Your task to perform on an android device: make emails show in primary in the gmail app Image 0: 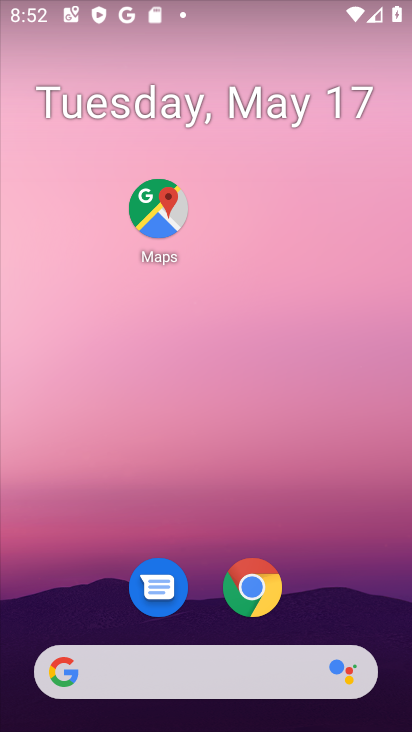
Step 0: drag from (34, 406) to (208, 124)
Your task to perform on an android device: make emails show in primary in the gmail app Image 1: 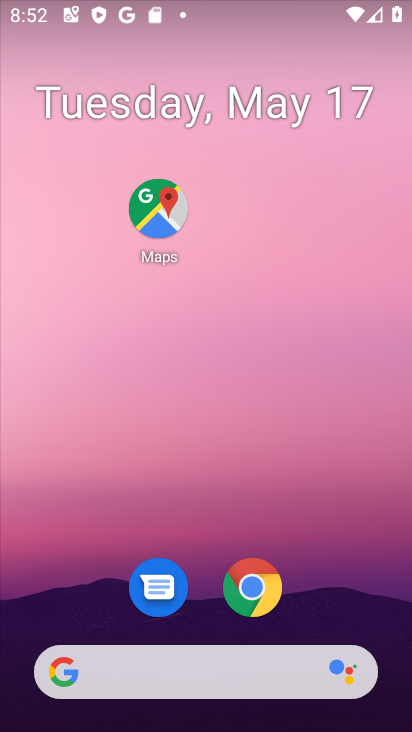
Step 1: drag from (33, 551) to (273, 139)
Your task to perform on an android device: make emails show in primary in the gmail app Image 2: 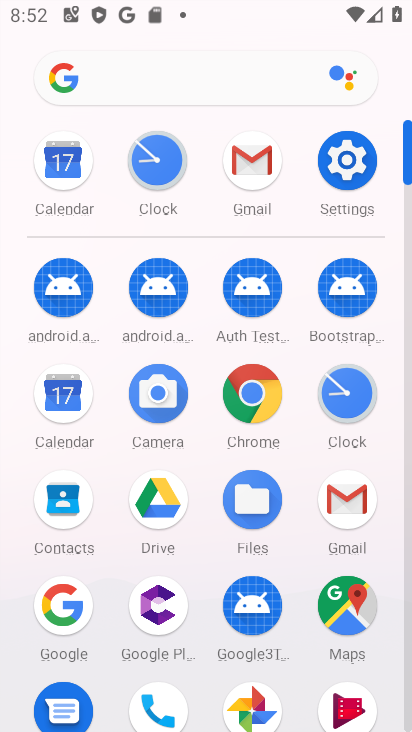
Step 2: click (256, 164)
Your task to perform on an android device: make emails show in primary in the gmail app Image 3: 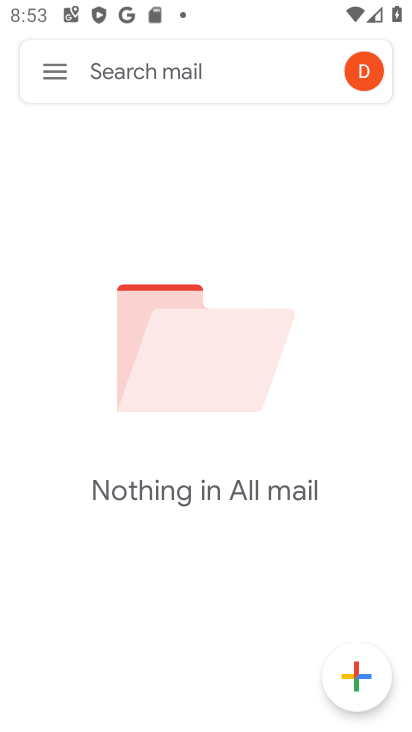
Step 3: click (36, 63)
Your task to perform on an android device: make emails show in primary in the gmail app Image 4: 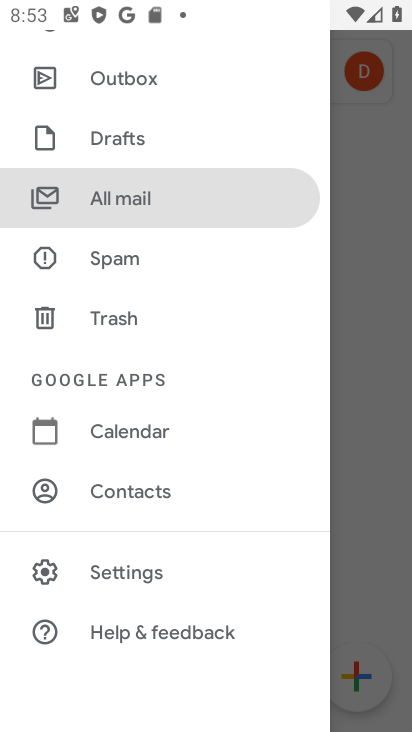
Step 4: drag from (136, 121) to (159, 596)
Your task to perform on an android device: make emails show in primary in the gmail app Image 5: 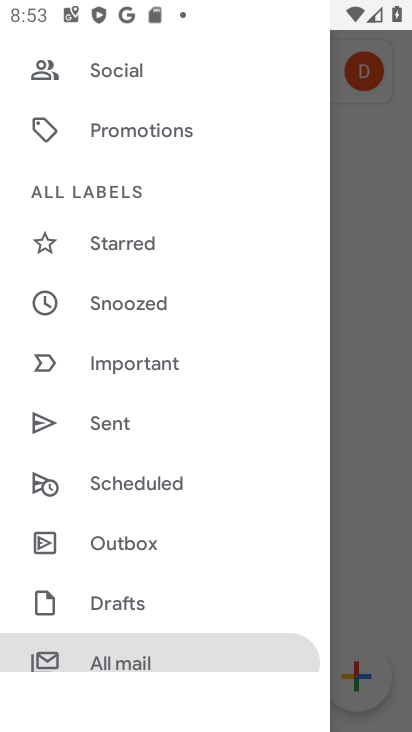
Step 5: drag from (199, 120) to (155, 591)
Your task to perform on an android device: make emails show in primary in the gmail app Image 6: 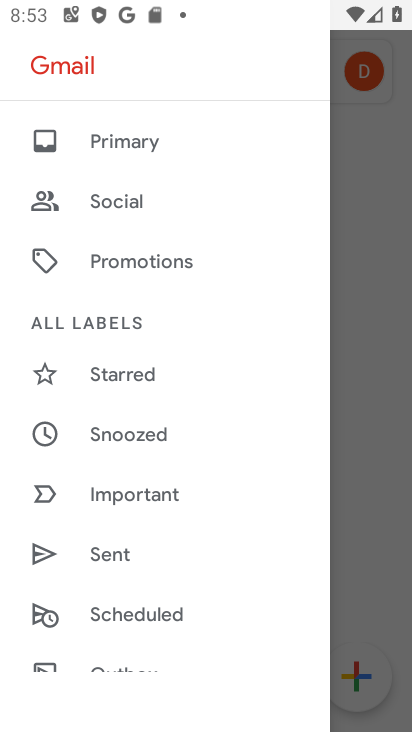
Step 6: click (244, 132)
Your task to perform on an android device: make emails show in primary in the gmail app Image 7: 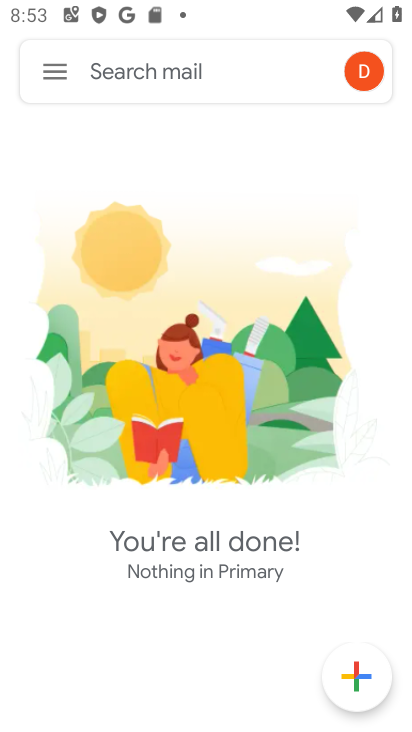
Step 7: task complete